Your task to perform on an android device: Open the map Image 0: 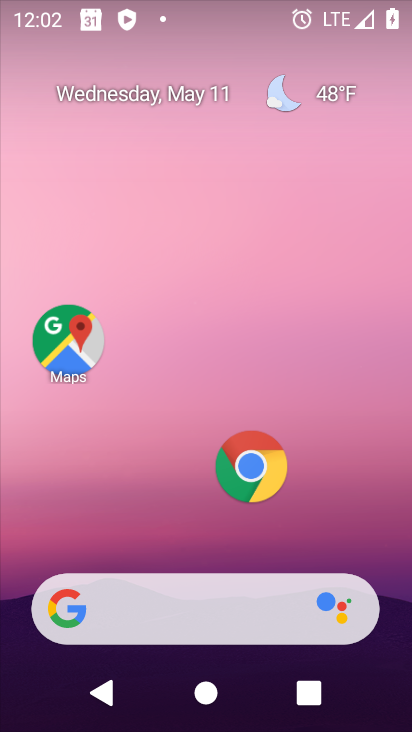
Step 0: click (73, 333)
Your task to perform on an android device: Open the map Image 1: 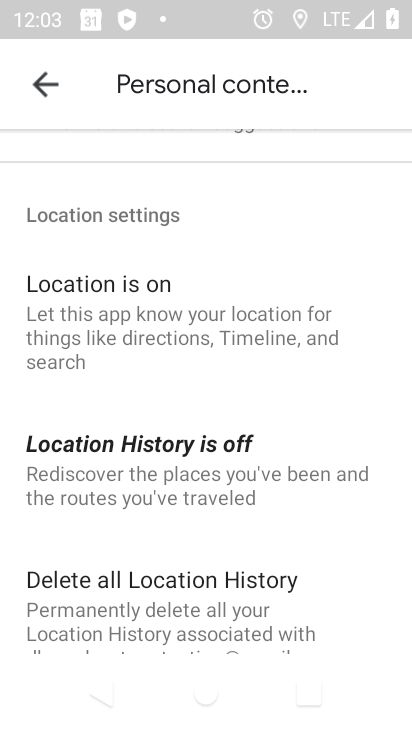
Step 1: task complete